Your task to perform on an android device: Is it going to rain tomorrow? Image 0: 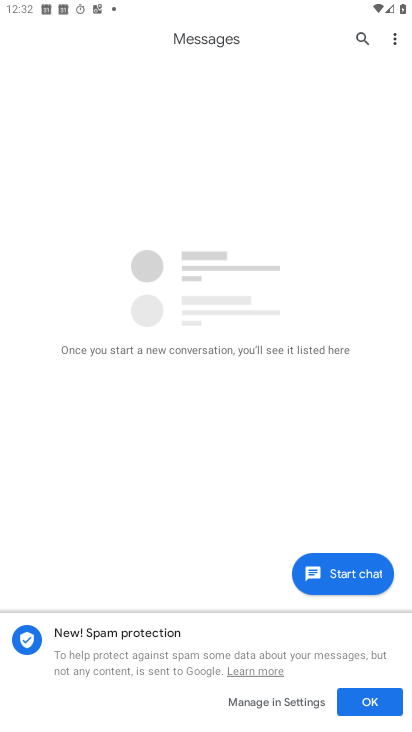
Step 0: press home button
Your task to perform on an android device: Is it going to rain tomorrow? Image 1: 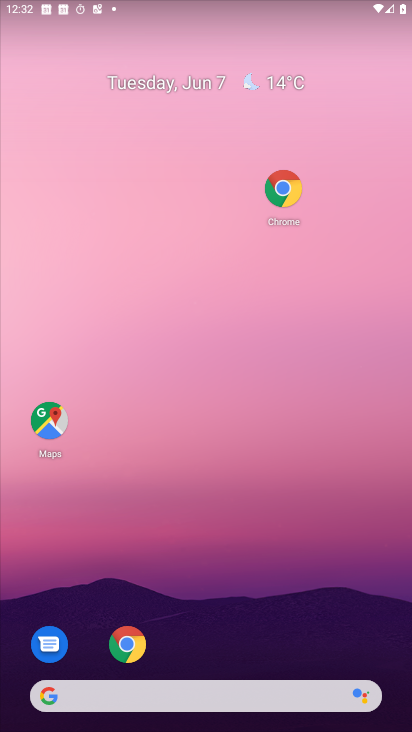
Step 1: click (283, 89)
Your task to perform on an android device: Is it going to rain tomorrow? Image 2: 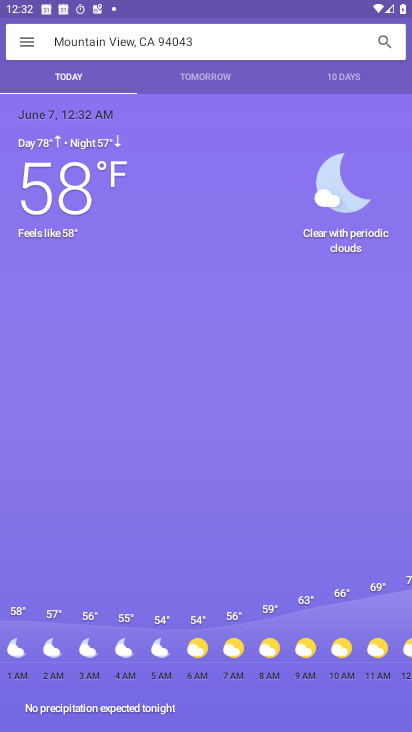
Step 2: click (217, 85)
Your task to perform on an android device: Is it going to rain tomorrow? Image 3: 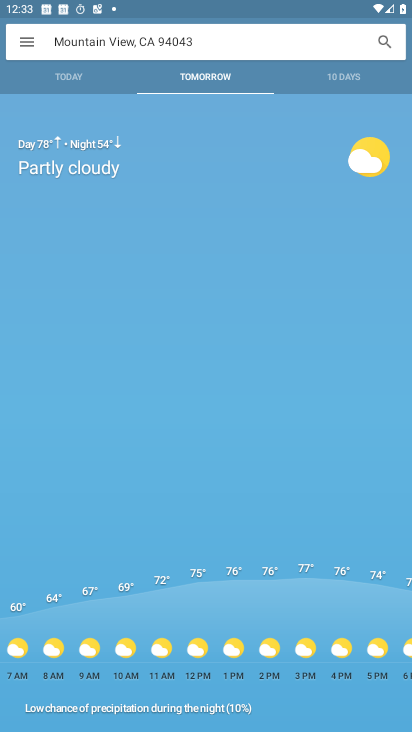
Step 3: task complete